Your task to perform on an android device: Check the news Image 0: 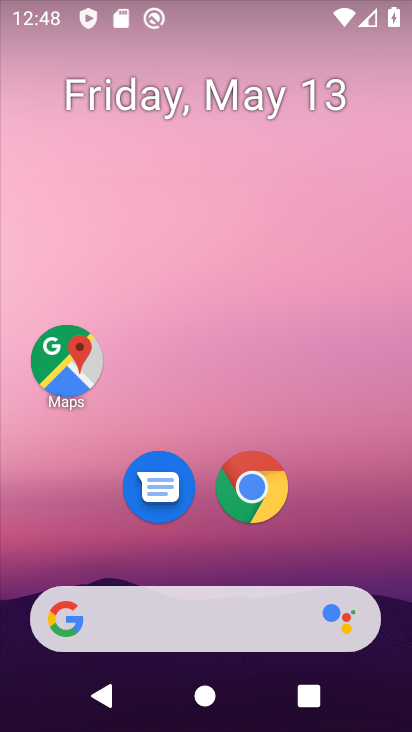
Step 0: drag from (348, 297) to (355, 109)
Your task to perform on an android device: Check the news Image 1: 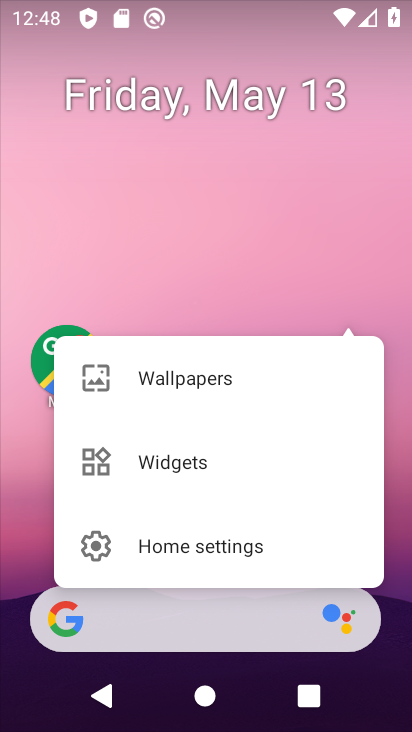
Step 1: click (367, 282)
Your task to perform on an android device: Check the news Image 2: 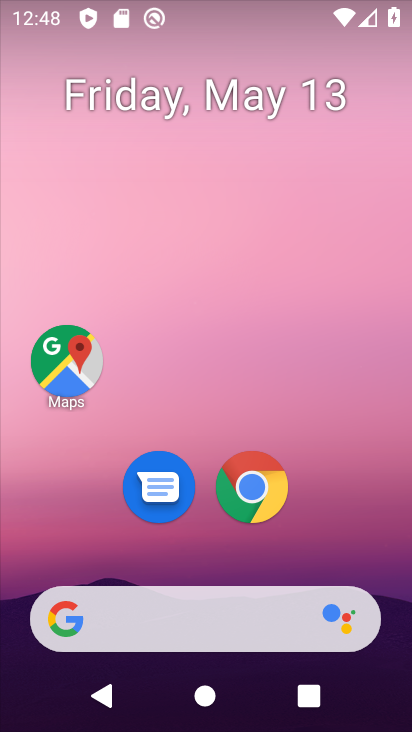
Step 2: drag from (390, 490) to (360, 67)
Your task to perform on an android device: Check the news Image 3: 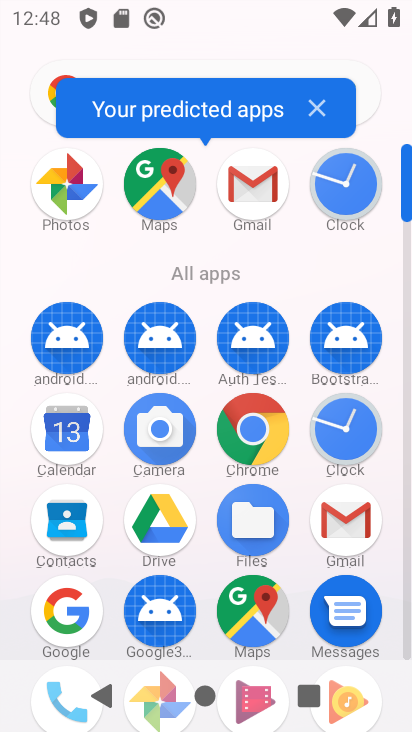
Step 3: click (238, 430)
Your task to perform on an android device: Check the news Image 4: 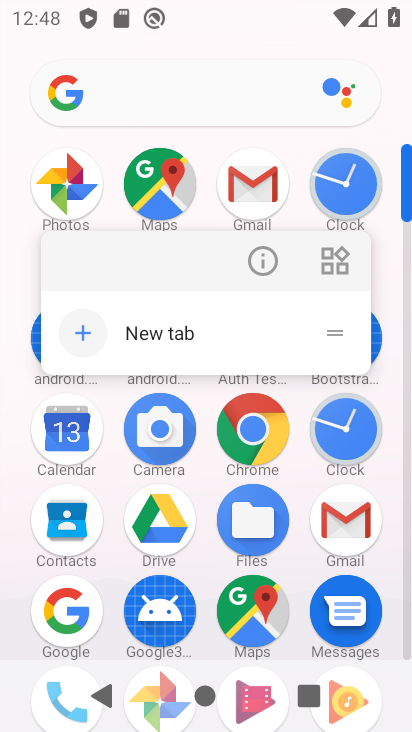
Step 4: click (230, 436)
Your task to perform on an android device: Check the news Image 5: 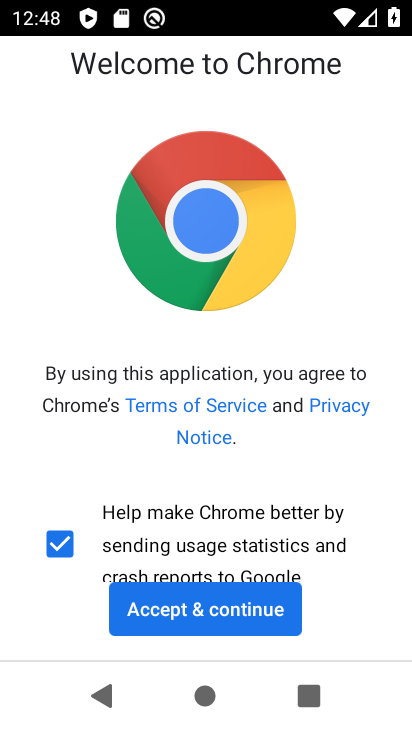
Step 5: click (256, 609)
Your task to perform on an android device: Check the news Image 6: 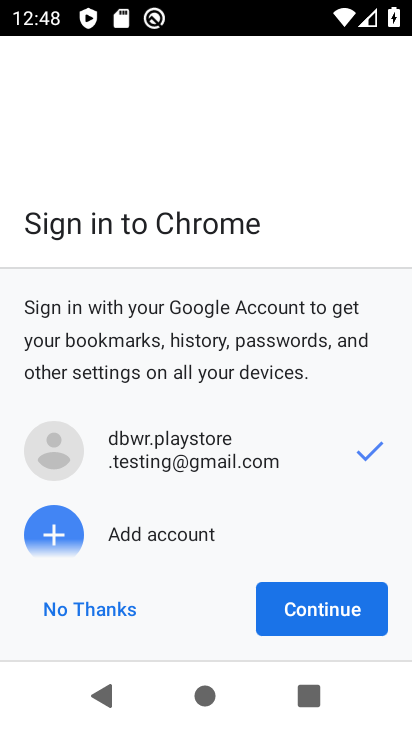
Step 6: click (312, 621)
Your task to perform on an android device: Check the news Image 7: 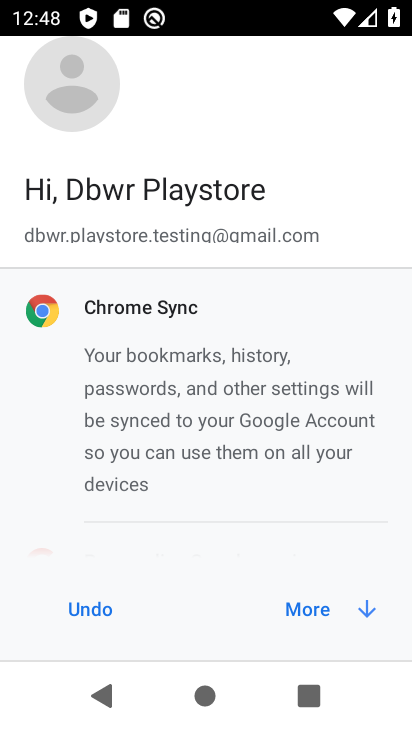
Step 7: click (307, 616)
Your task to perform on an android device: Check the news Image 8: 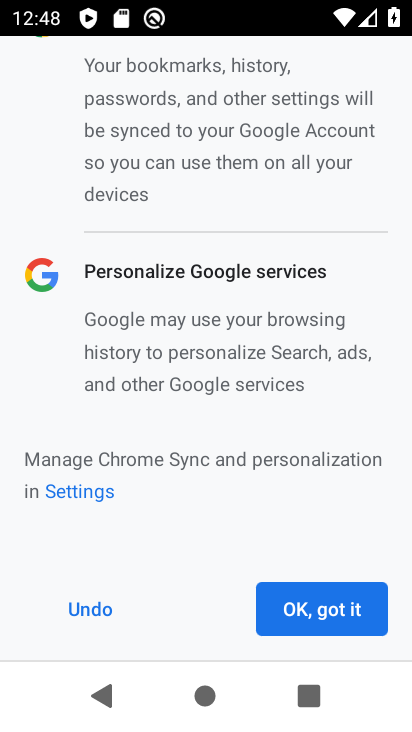
Step 8: click (307, 616)
Your task to perform on an android device: Check the news Image 9: 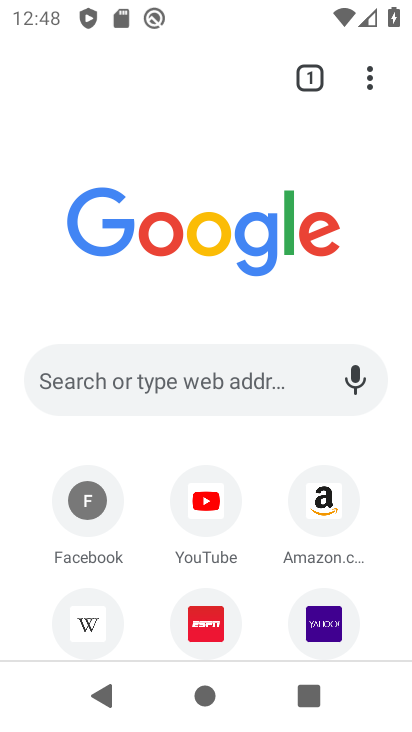
Step 9: click (165, 388)
Your task to perform on an android device: Check the news Image 10: 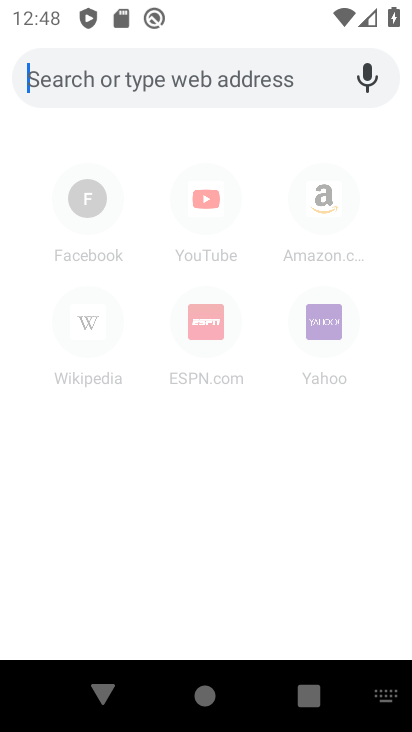
Step 10: type "check the news"
Your task to perform on an android device: Check the news Image 11: 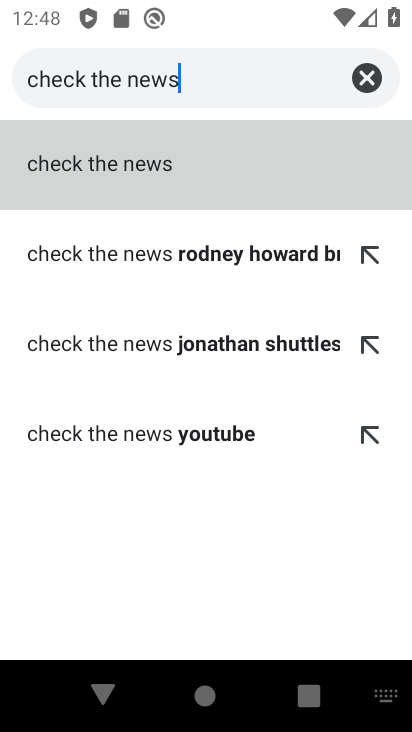
Step 11: click (155, 195)
Your task to perform on an android device: Check the news Image 12: 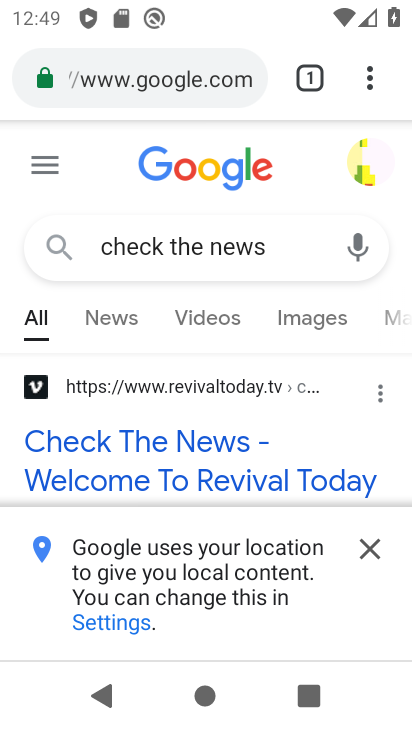
Step 12: task complete